Your task to perform on an android device: Do I have any events tomorrow? Image 0: 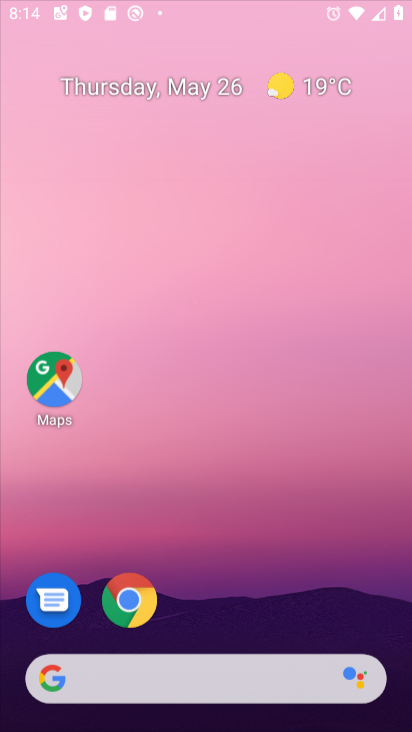
Step 0: press home button
Your task to perform on an android device: Do I have any events tomorrow? Image 1: 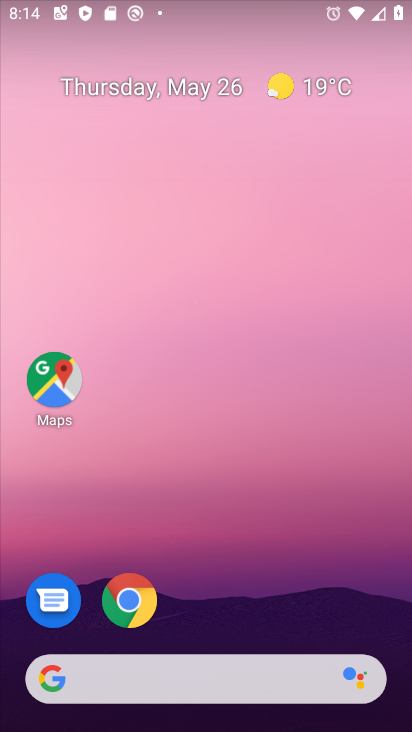
Step 1: drag from (268, 625) to (221, 165)
Your task to perform on an android device: Do I have any events tomorrow? Image 2: 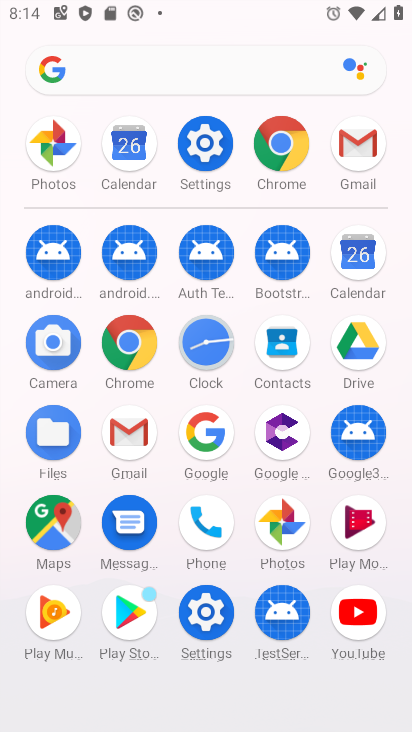
Step 2: click (350, 269)
Your task to perform on an android device: Do I have any events tomorrow? Image 3: 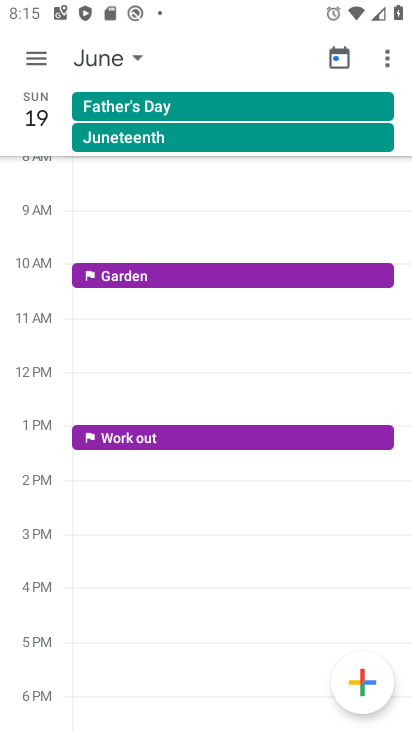
Step 3: click (40, 58)
Your task to perform on an android device: Do I have any events tomorrow? Image 4: 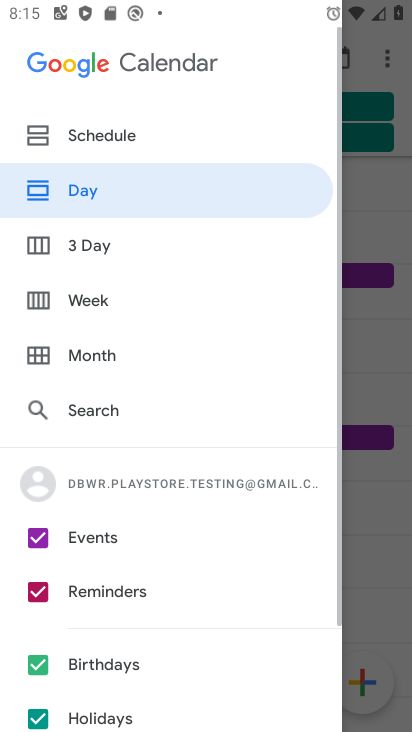
Step 4: click (92, 541)
Your task to perform on an android device: Do I have any events tomorrow? Image 5: 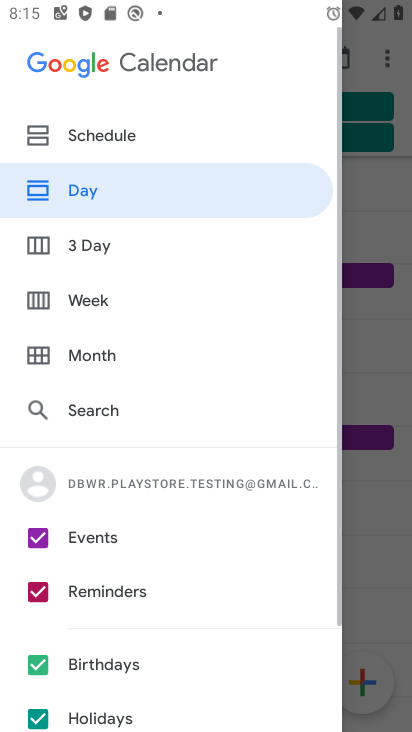
Step 5: click (368, 508)
Your task to perform on an android device: Do I have any events tomorrow? Image 6: 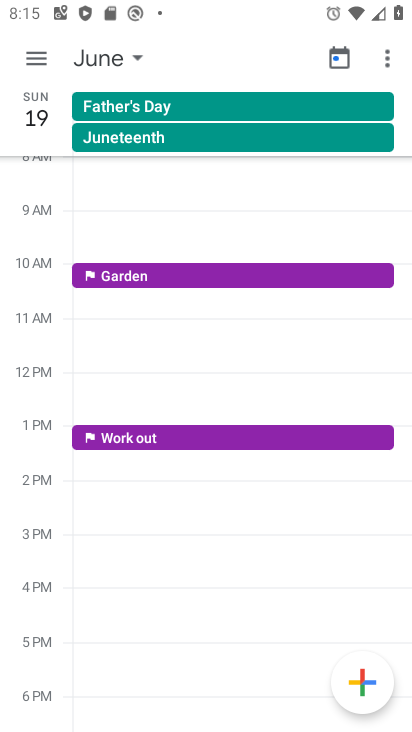
Step 6: task complete